Your task to perform on an android device: Open calendar and show me the third week of next month Image 0: 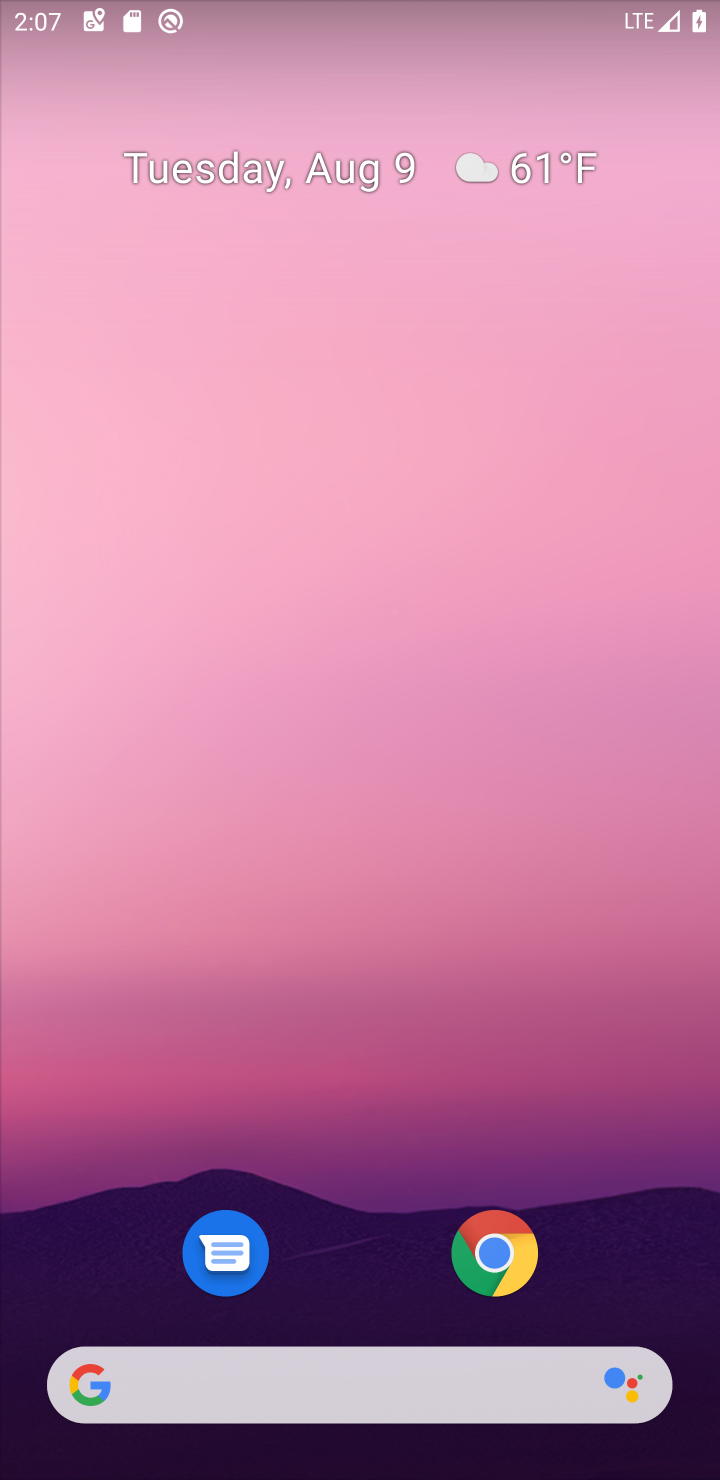
Step 0: drag from (577, 939) to (277, 26)
Your task to perform on an android device: Open calendar and show me the third week of next month Image 1: 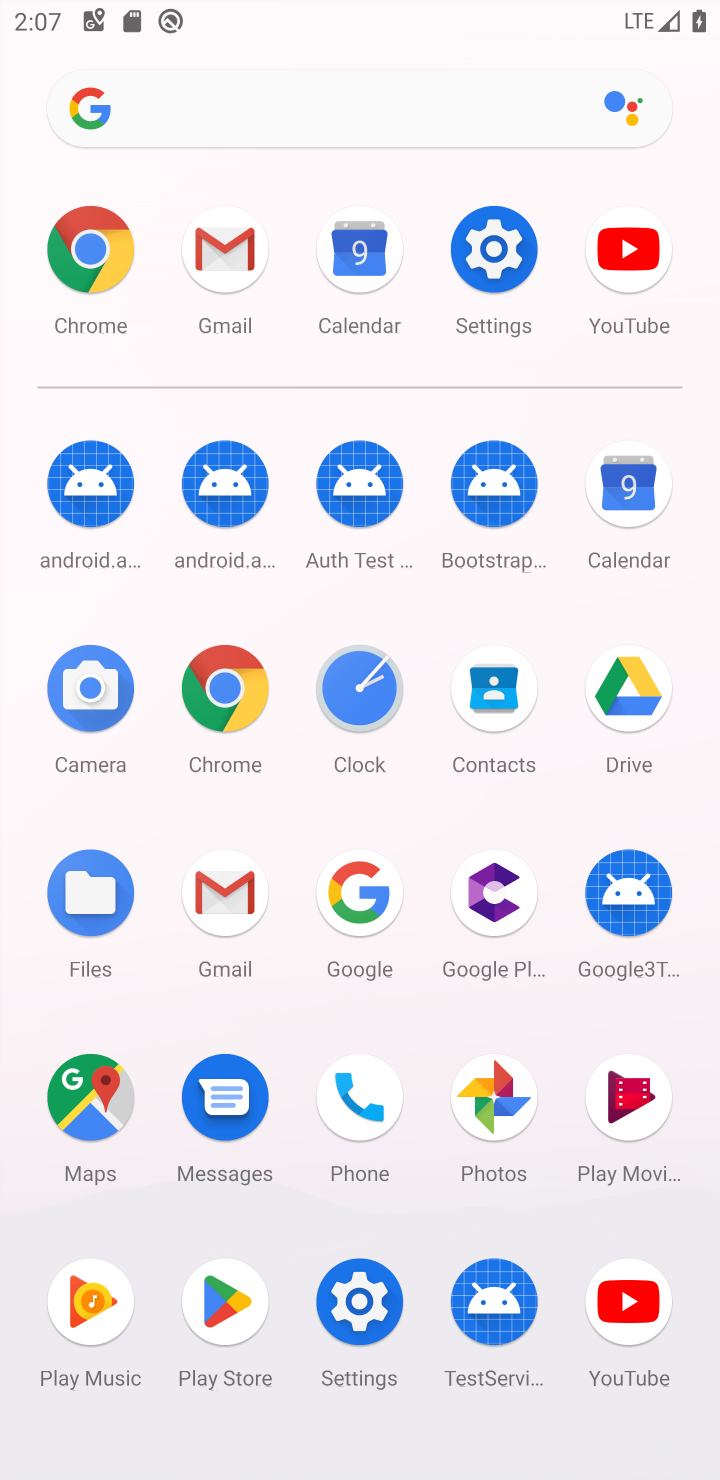
Step 1: click (641, 505)
Your task to perform on an android device: Open calendar and show me the third week of next month Image 2: 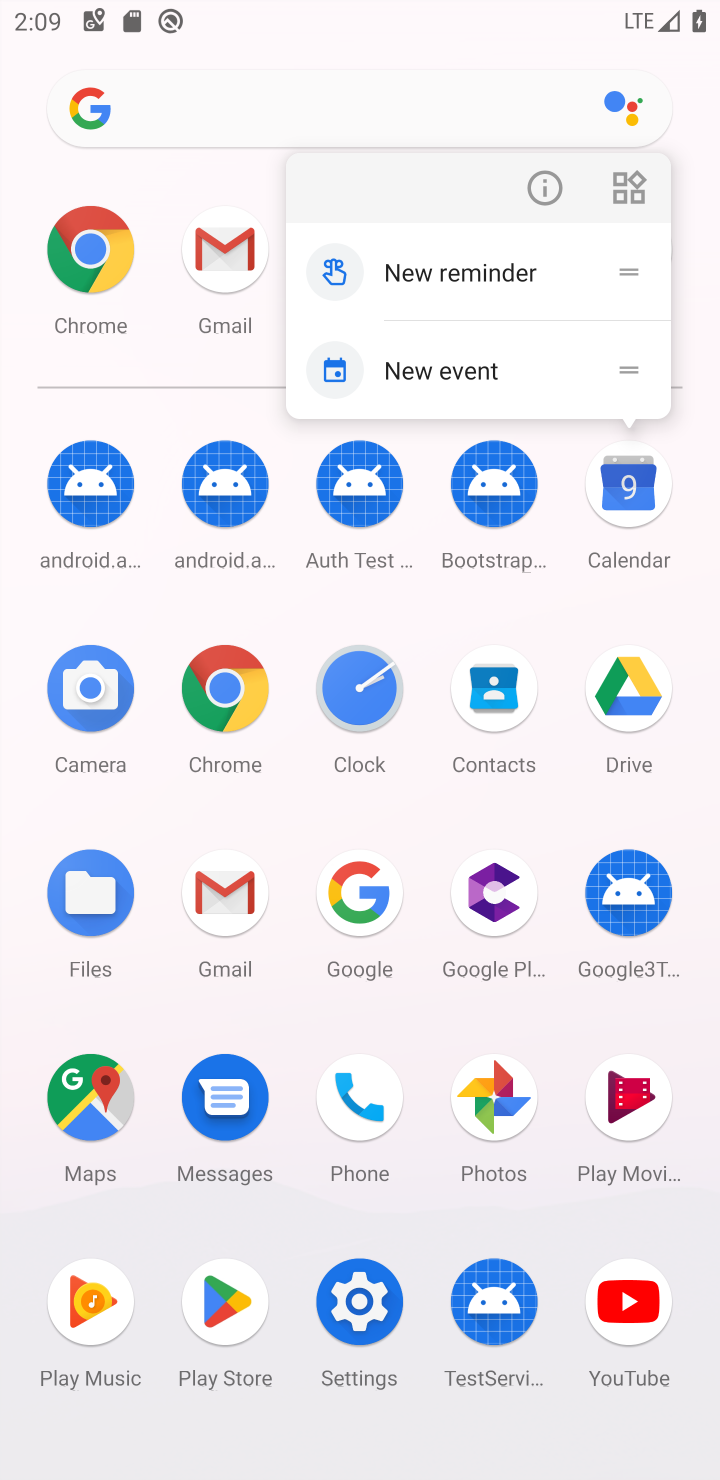
Step 2: click (637, 491)
Your task to perform on an android device: Open calendar and show me the third week of next month Image 3: 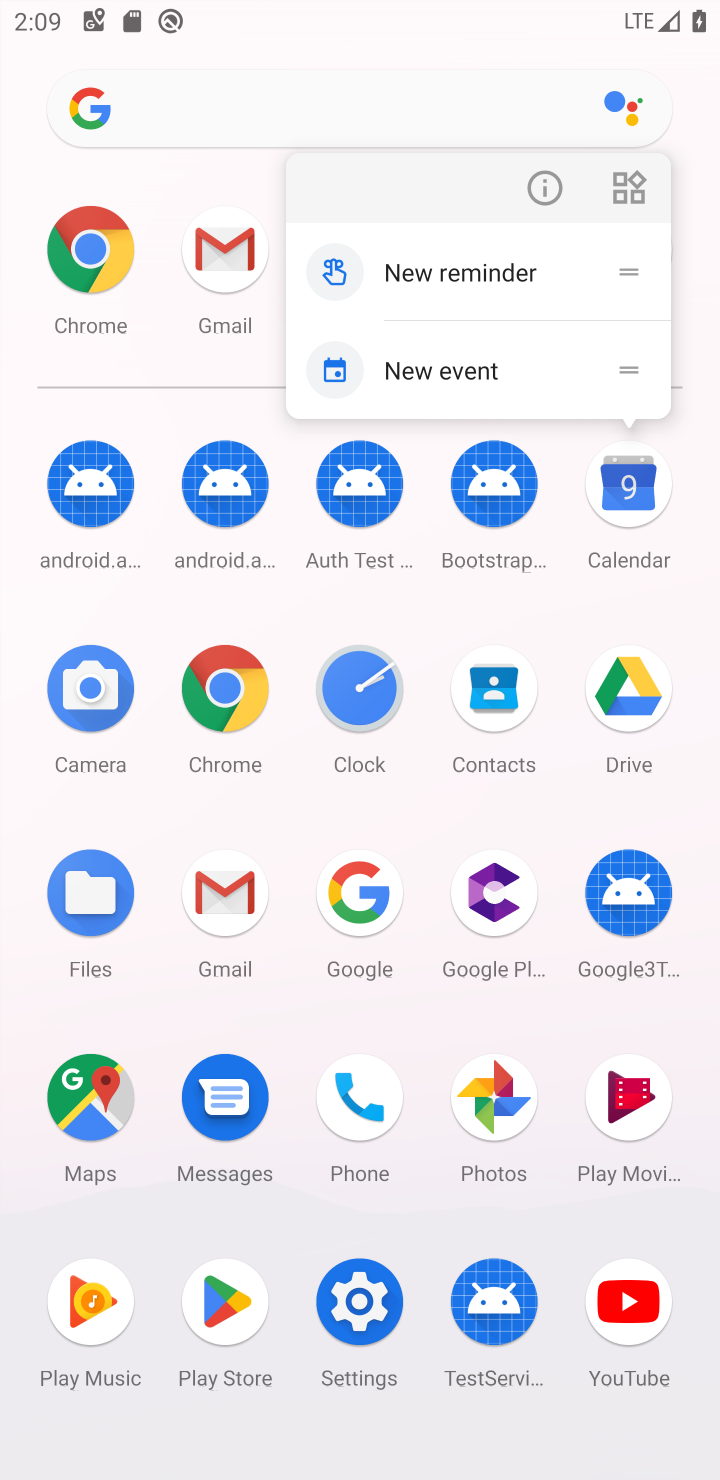
Step 3: click (614, 506)
Your task to perform on an android device: Open calendar and show me the third week of next month Image 4: 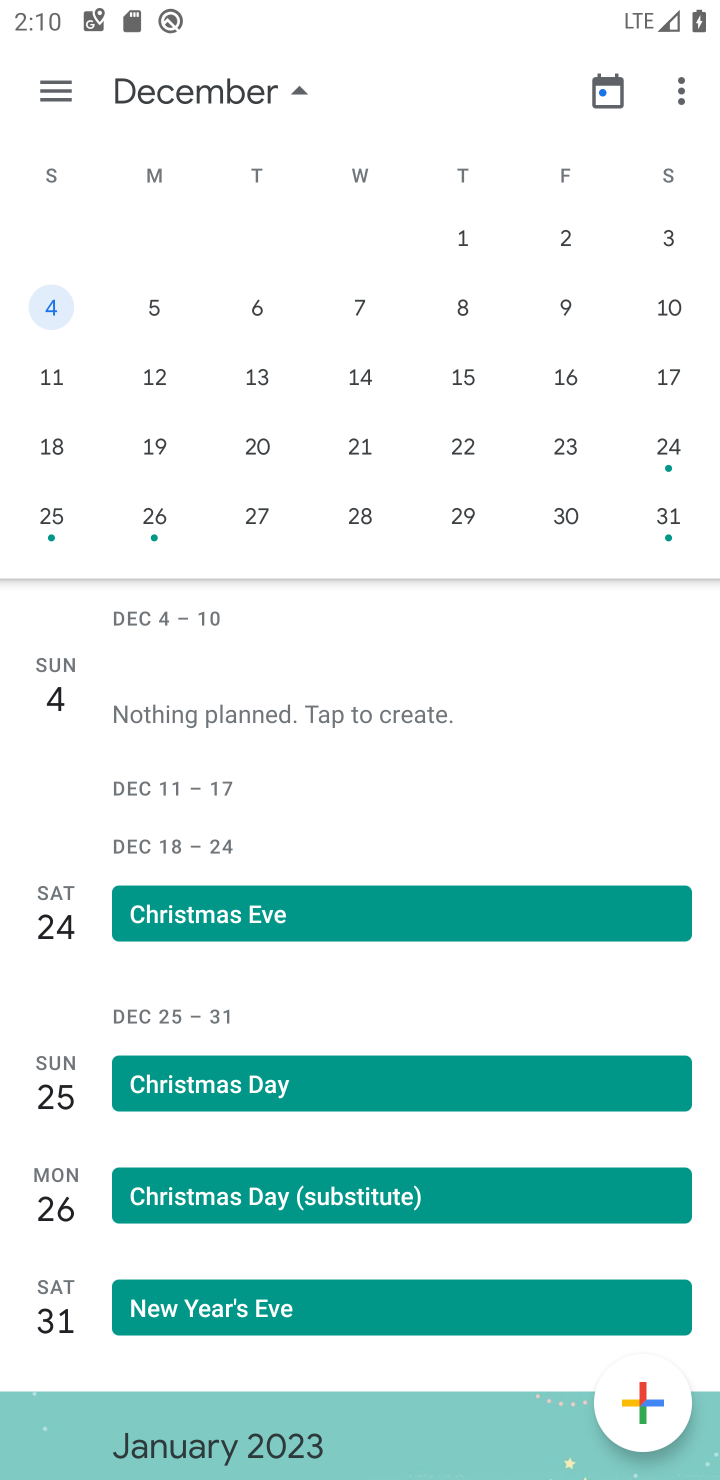
Step 4: task complete